Your task to perform on an android device: toggle show notifications on the lock screen Image 0: 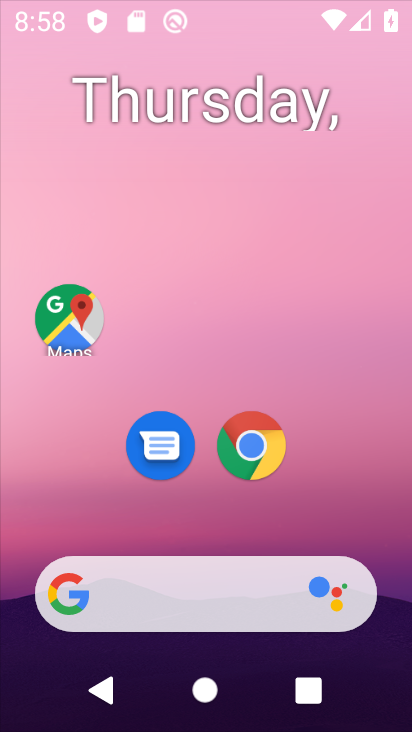
Step 0: click (176, 9)
Your task to perform on an android device: toggle show notifications on the lock screen Image 1: 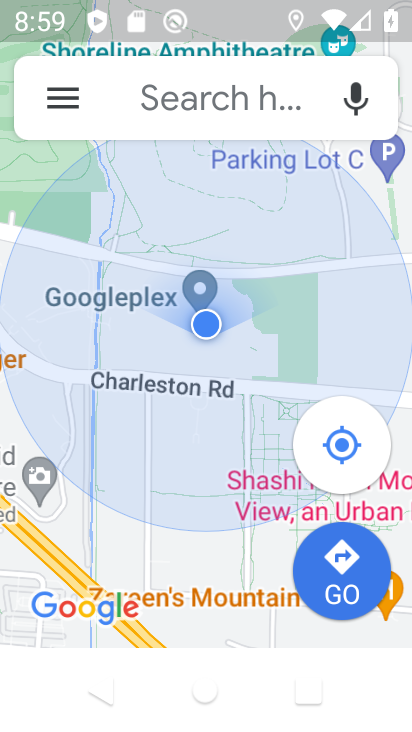
Step 1: press home button
Your task to perform on an android device: toggle show notifications on the lock screen Image 2: 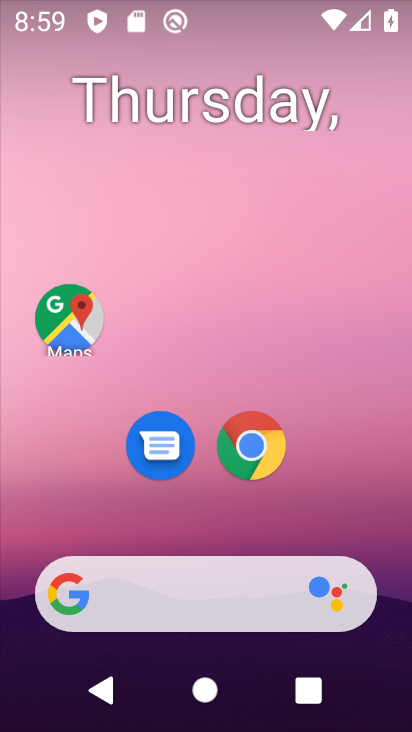
Step 2: drag from (204, 465) to (275, 141)
Your task to perform on an android device: toggle show notifications on the lock screen Image 3: 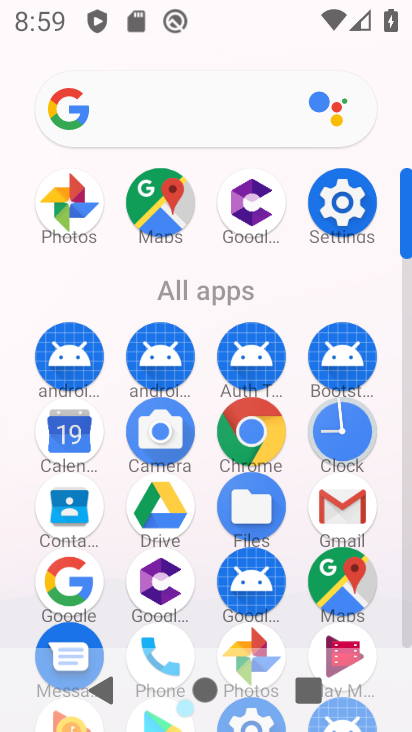
Step 3: click (352, 176)
Your task to perform on an android device: toggle show notifications on the lock screen Image 4: 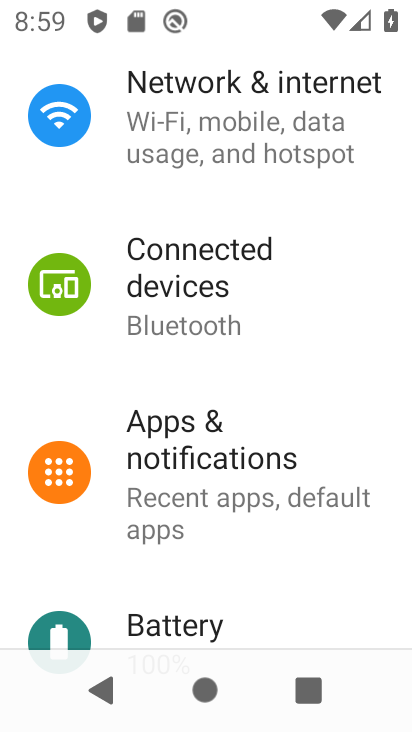
Step 4: click (191, 443)
Your task to perform on an android device: toggle show notifications on the lock screen Image 5: 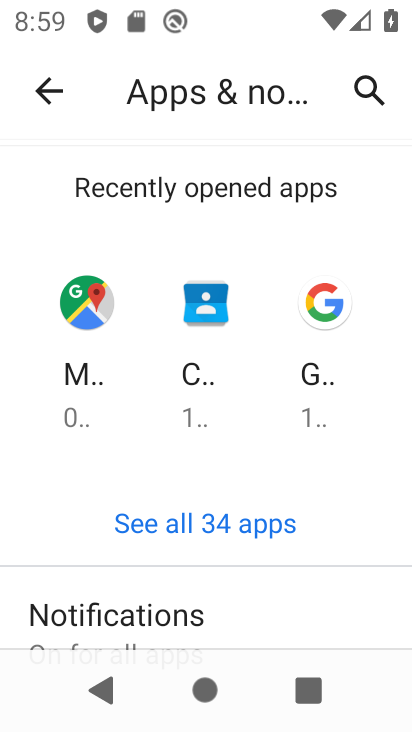
Step 5: click (227, 614)
Your task to perform on an android device: toggle show notifications on the lock screen Image 6: 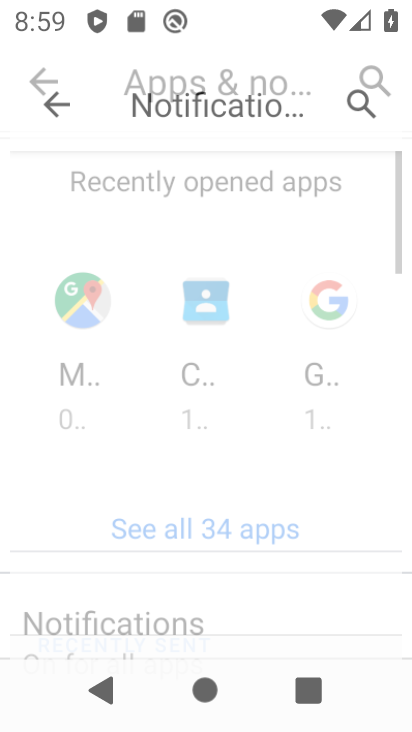
Step 6: drag from (235, 582) to (411, 116)
Your task to perform on an android device: toggle show notifications on the lock screen Image 7: 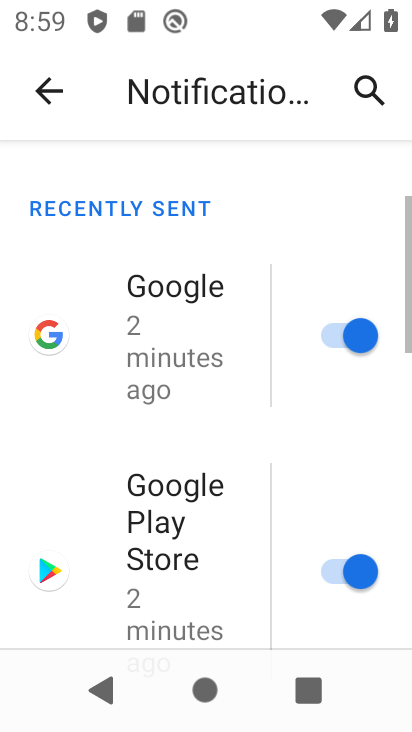
Step 7: drag from (218, 517) to (361, 19)
Your task to perform on an android device: toggle show notifications on the lock screen Image 8: 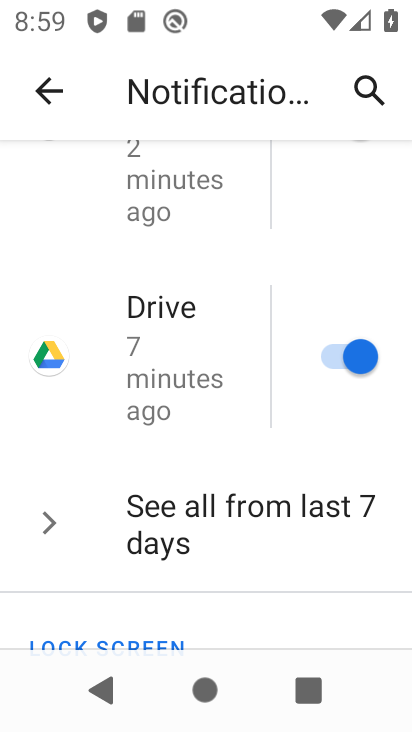
Step 8: drag from (202, 606) to (308, 199)
Your task to perform on an android device: toggle show notifications on the lock screen Image 9: 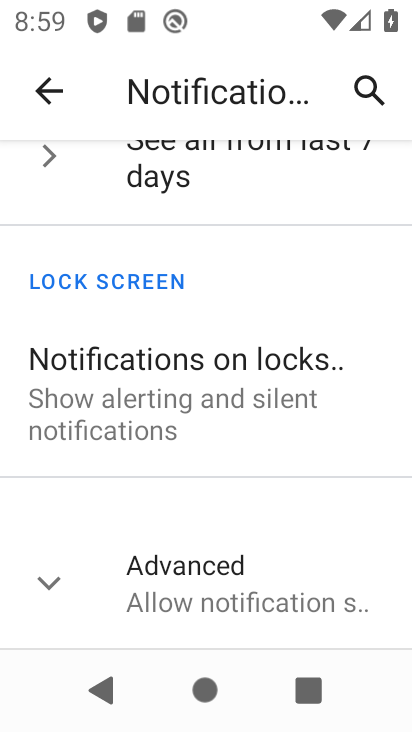
Step 9: click (150, 399)
Your task to perform on an android device: toggle show notifications on the lock screen Image 10: 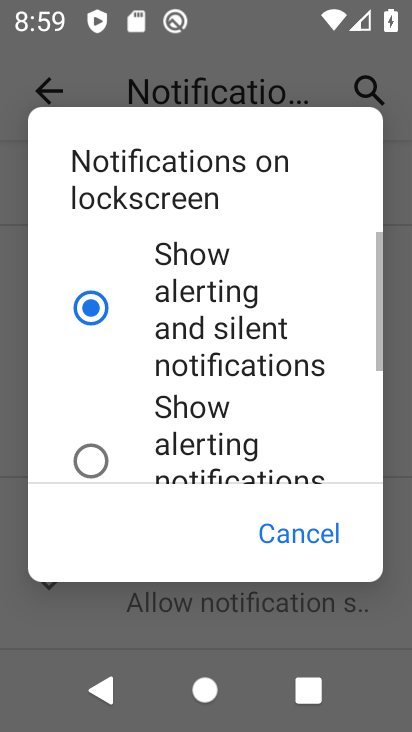
Step 10: task complete